Your task to perform on an android device: Open location settings Image 0: 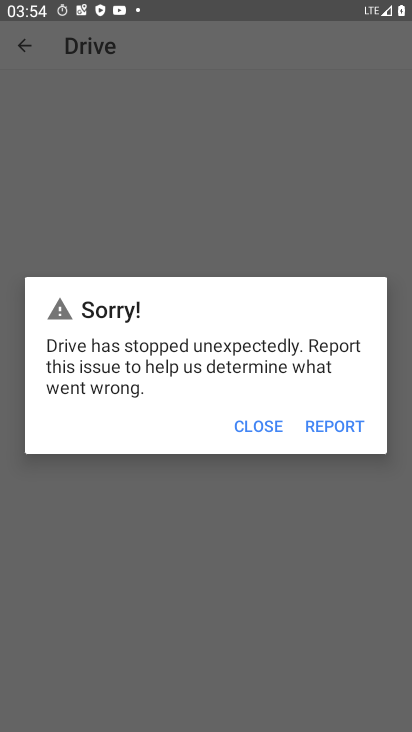
Step 0: click (273, 419)
Your task to perform on an android device: Open location settings Image 1: 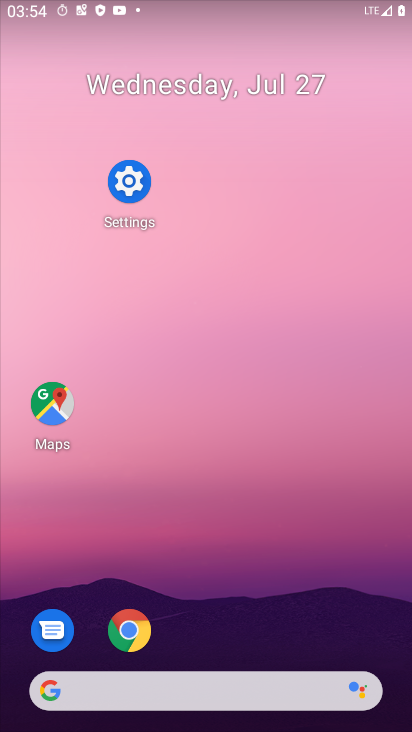
Step 1: drag from (270, 588) to (210, 114)
Your task to perform on an android device: Open location settings Image 2: 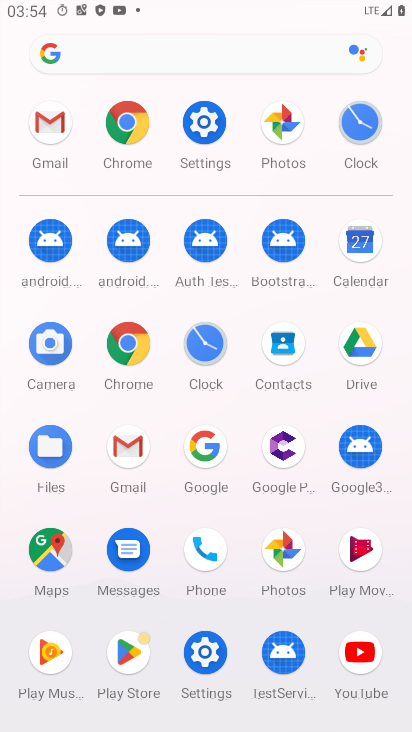
Step 2: click (194, 120)
Your task to perform on an android device: Open location settings Image 3: 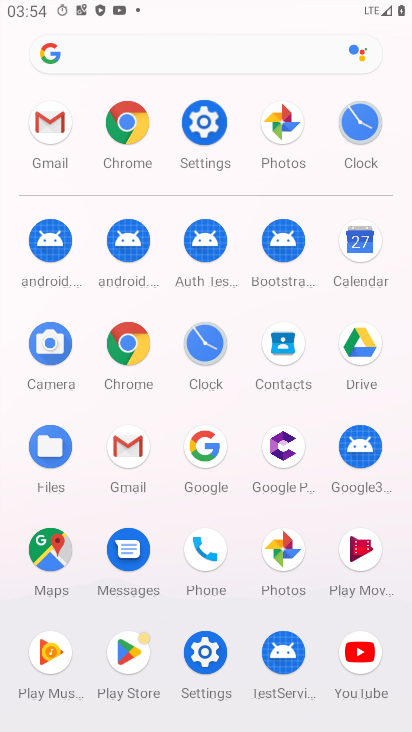
Step 3: click (194, 135)
Your task to perform on an android device: Open location settings Image 4: 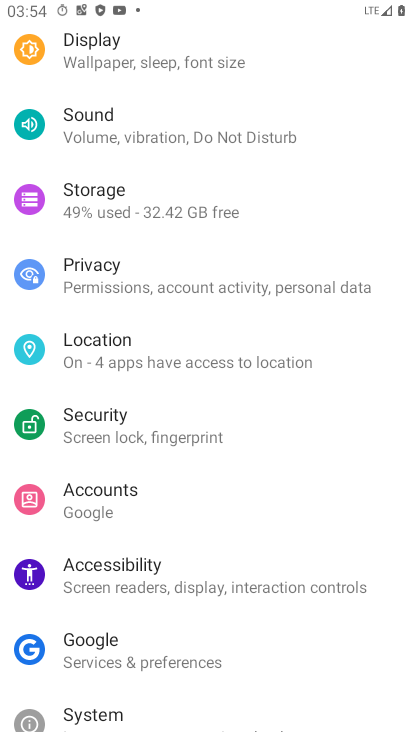
Step 4: click (104, 354)
Your task to perform on an android device: Open location settings Image 5: 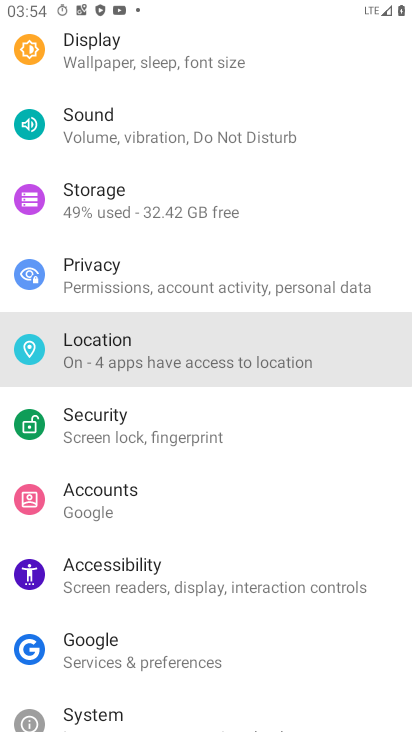
Step 5: click (111, 352)
Your task to perform on an android device: Open location settings Image 6: 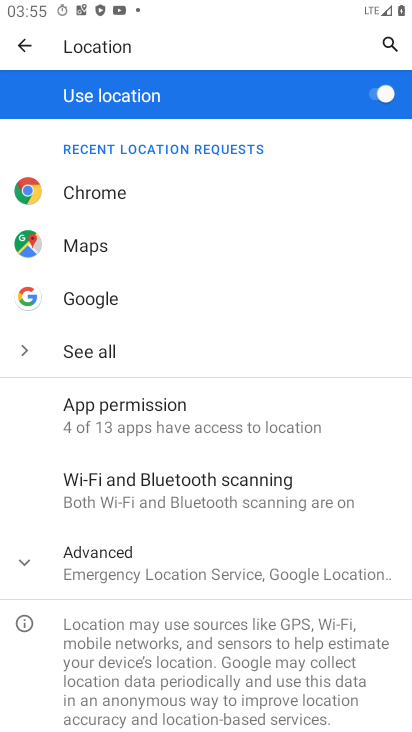
Step 6: click (121, 562)
Your task to perform on an android device: Open location settings Image 7: 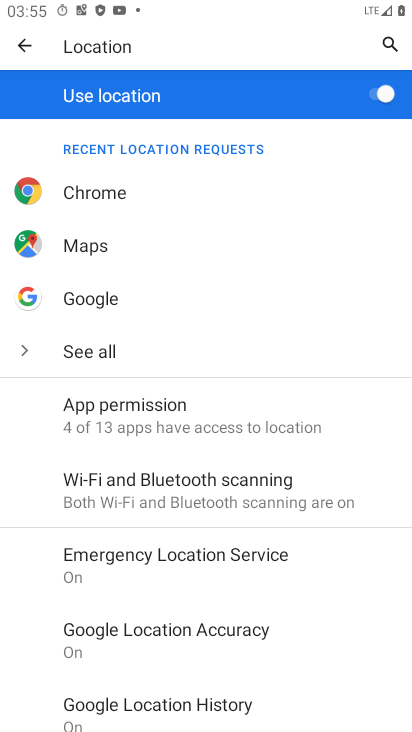
Step 7: task complete